Your task to perform on an android device: turn on airplane mode Image 0: 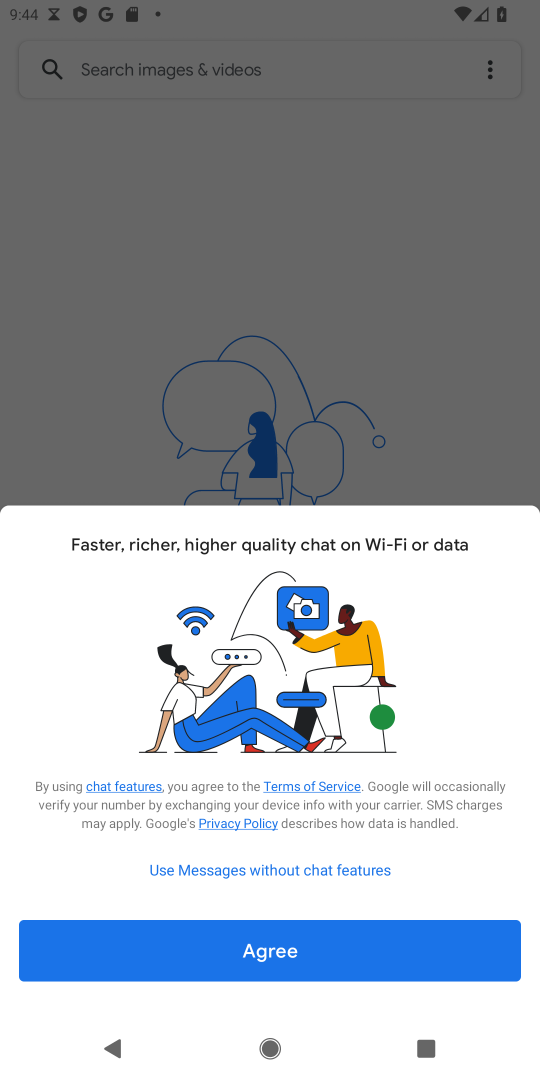
Step 0: press home button
Your task to perform on an android device: turn on airplane mode Image 1: 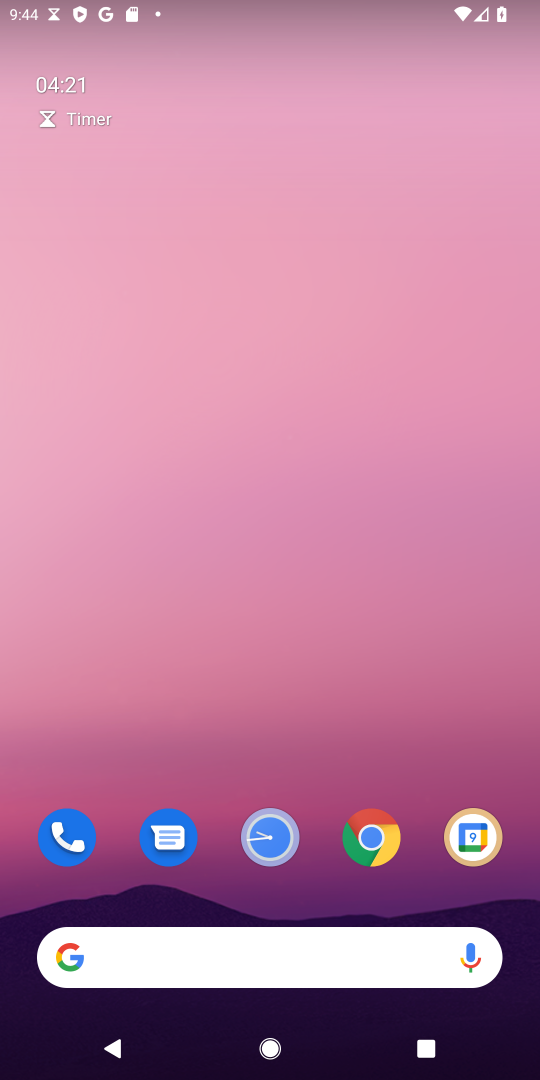
Step 1: drag from (323, 556) to (328, 229)
Your task to perform on an android device: turn on airplane mode Image 2: 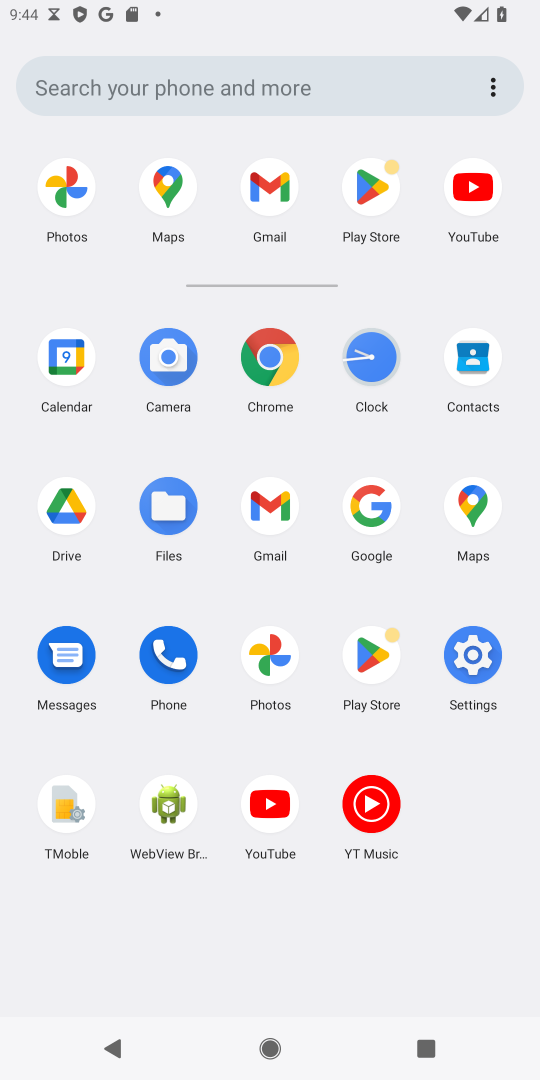
Step 2: click (480, 643)
Your task to perform on an android device: turn on airplane mode Image 3: 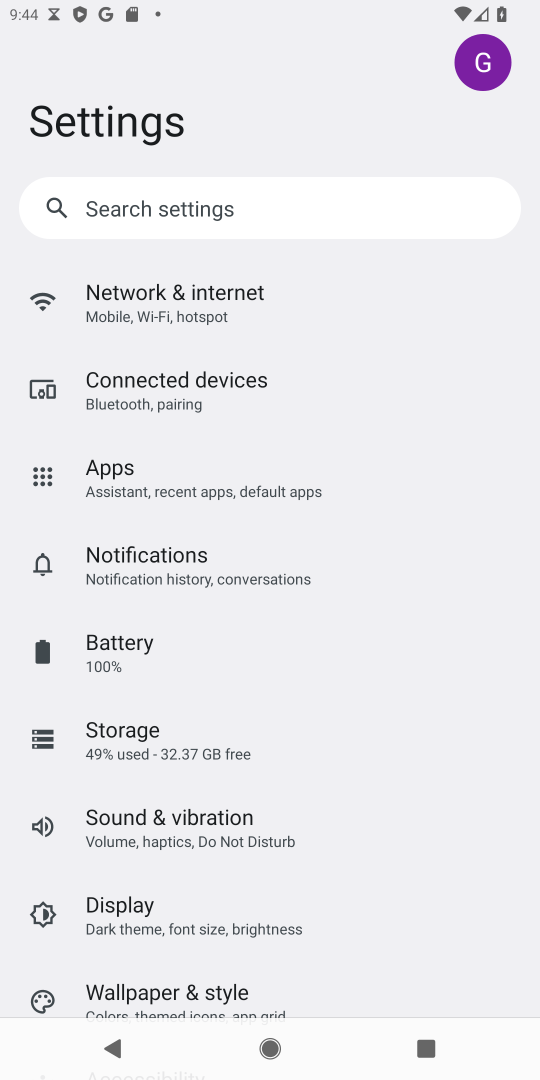
Step 3: click (174, 308)
Your task to perform on an android device: turn on airplane mode Image 4: 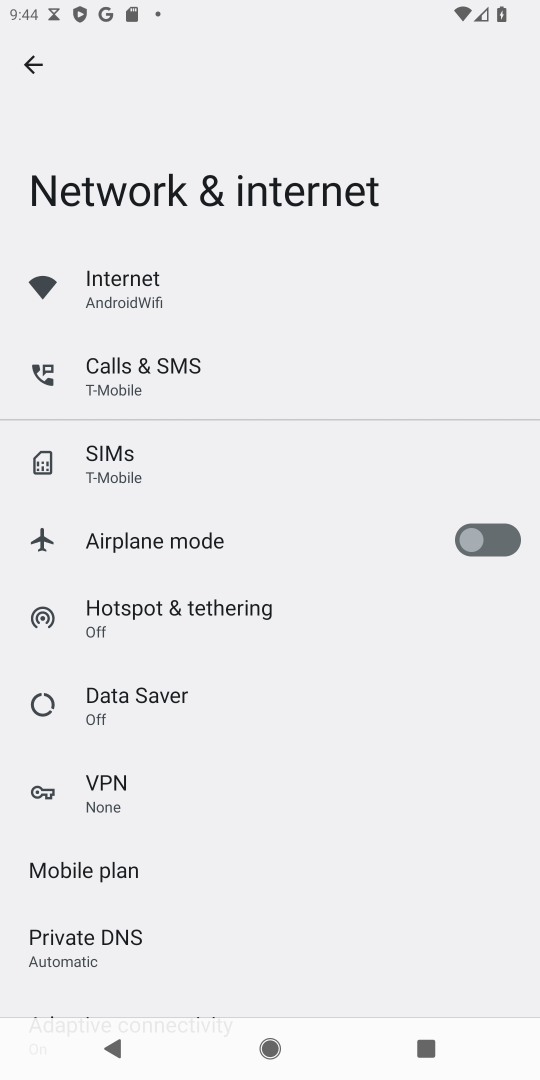
Step 4: click (503, 543)
Your task to perform on an android device: turn on airplane mode Image 5: 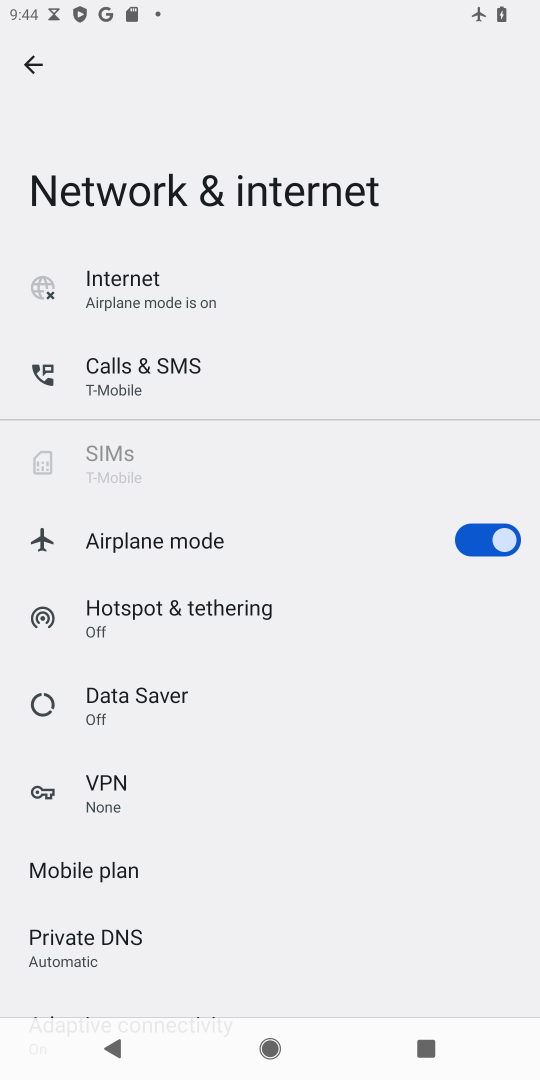
Step 5: task complete